Your task to perform on an android device: toggle airplane mode Image 0: 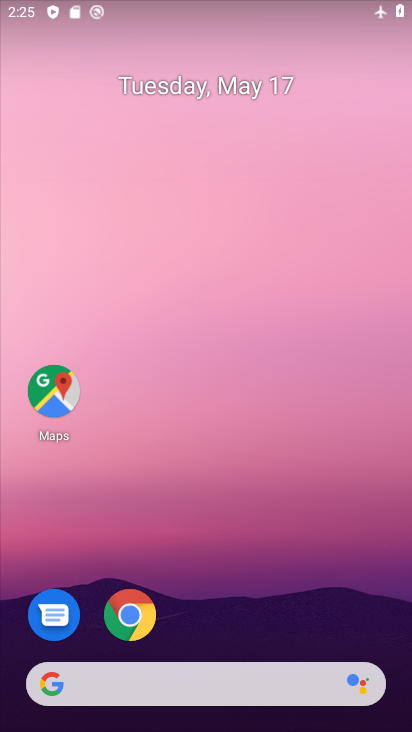
Step 0: drag from (185, 724) to (190, 113)
Your task to perform on an android device: toggle airplane mode Image 1: 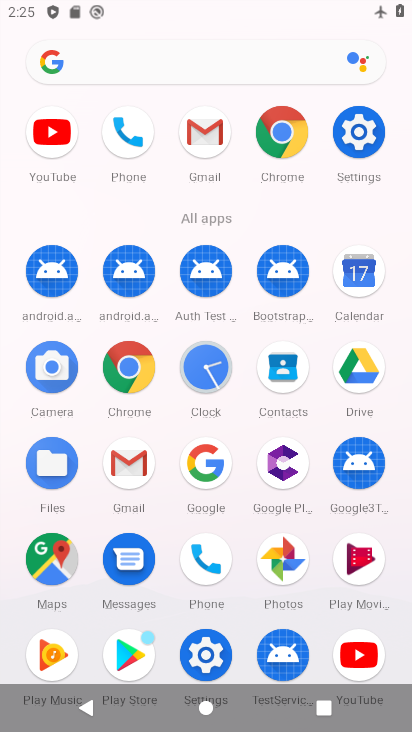
Step 1: click (357, 128)
Your task to perform on an android device: toggle airplane mode Image 2: 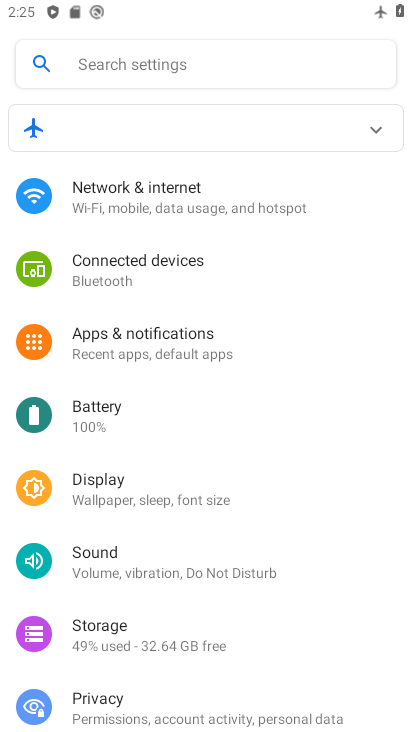
Step 2: click (116, 200)
Your task to perform on an android device: toggle airplane mode Image 3: 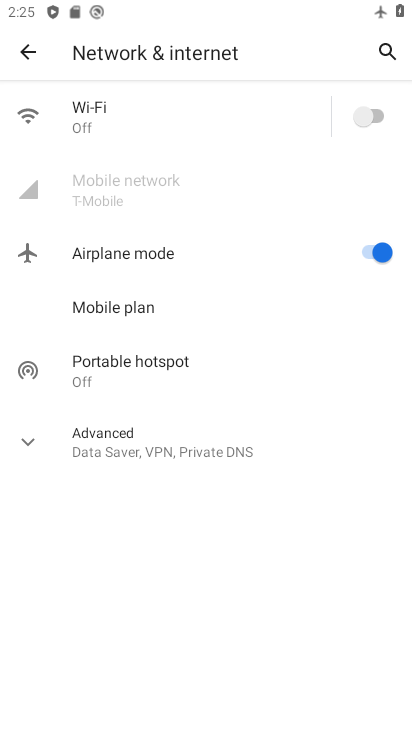
Step 3: click (369, 252)
Your task to perform on an android device: toggle airplane mode Image 4: 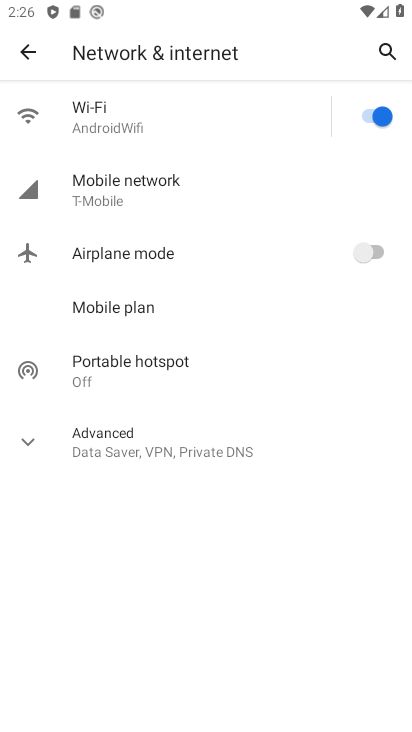
Step 4: task complete